Your task to perform on an android device: change notifications settings Image 0: 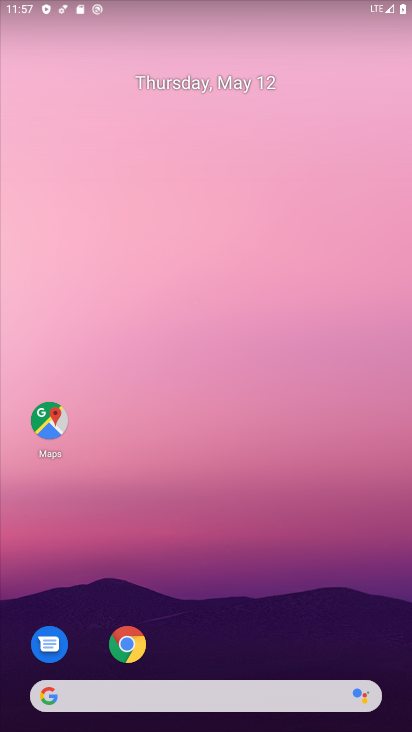
Step 0: drag from (367, 629) to (278, 103)
Your task to perform on an android device: change notifications settings Image 1: 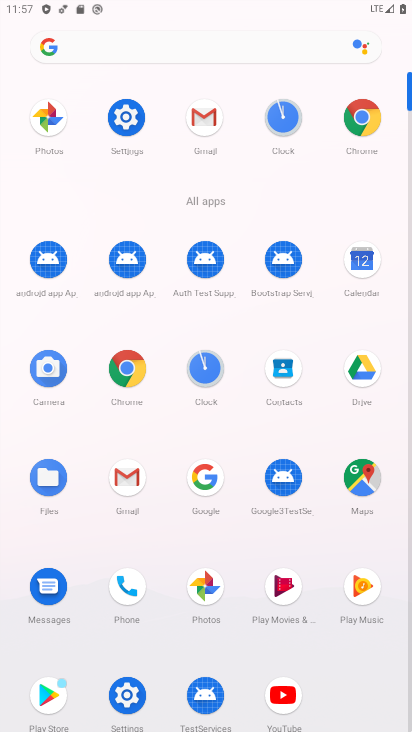
Step 1: click (123, 695)
Your task to perform on an android device: change notifications settings Image 2: 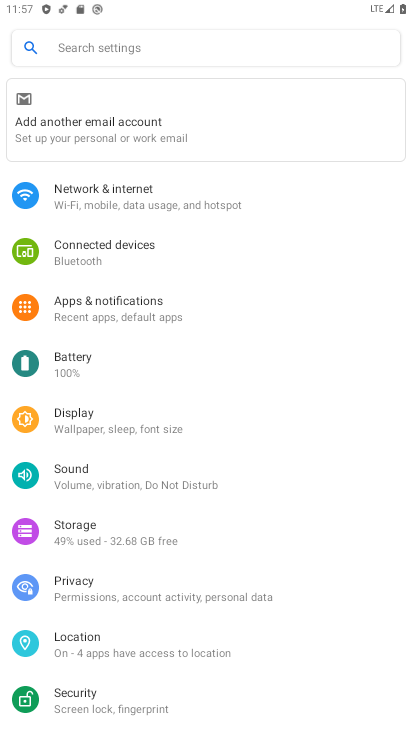
Step 2: click (212, 313)
Your task to perform on an android device: change notifications settings Image 3: 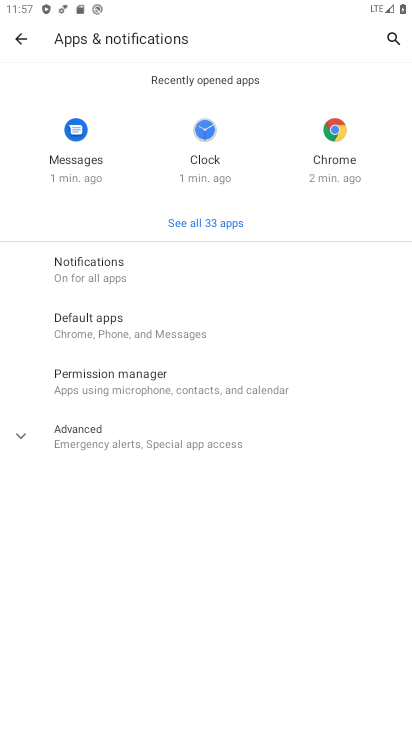
Step 3: click (165, 266)
Your task to perform on an android device: change notifications settings Image 4: 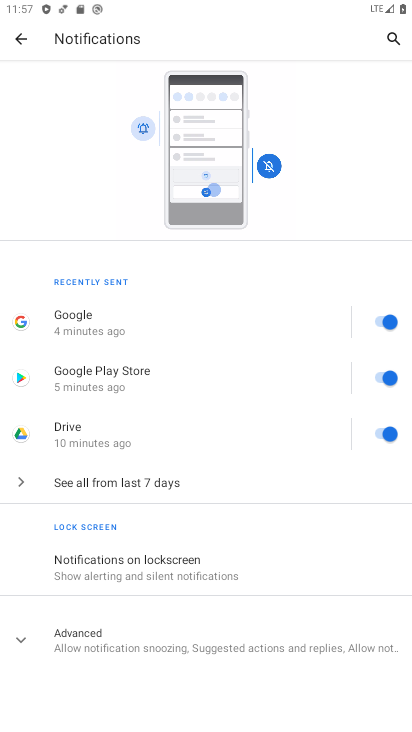
Step 4: task complete